Your task to perform on an android device: Search for usb-a to usb-b on costco, select the first entry, add it to the cart, then select checkout. Image 0: 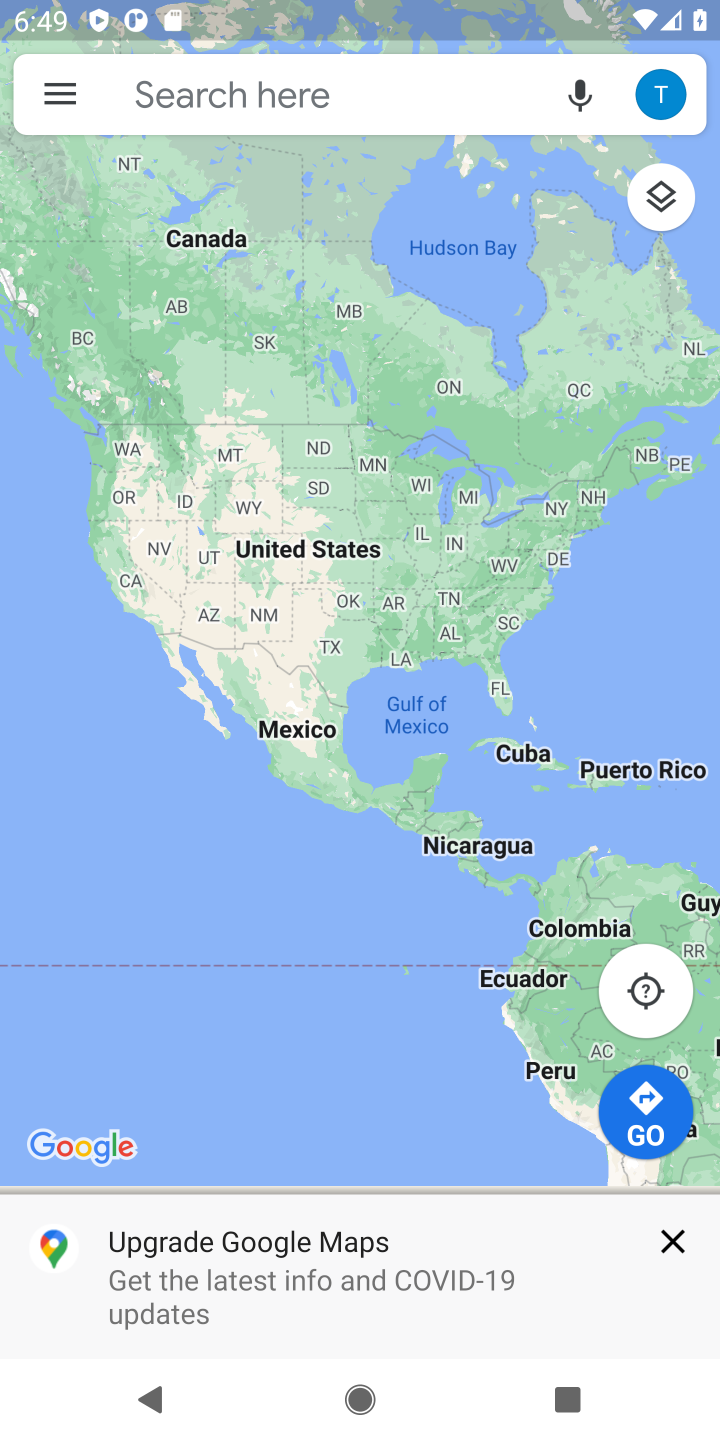
Step 0: press home button
Your task to perform on an android device: Search for usb-a to usb-b on costco, select the first entry, add it to the cart, then select checkout. Image 1: 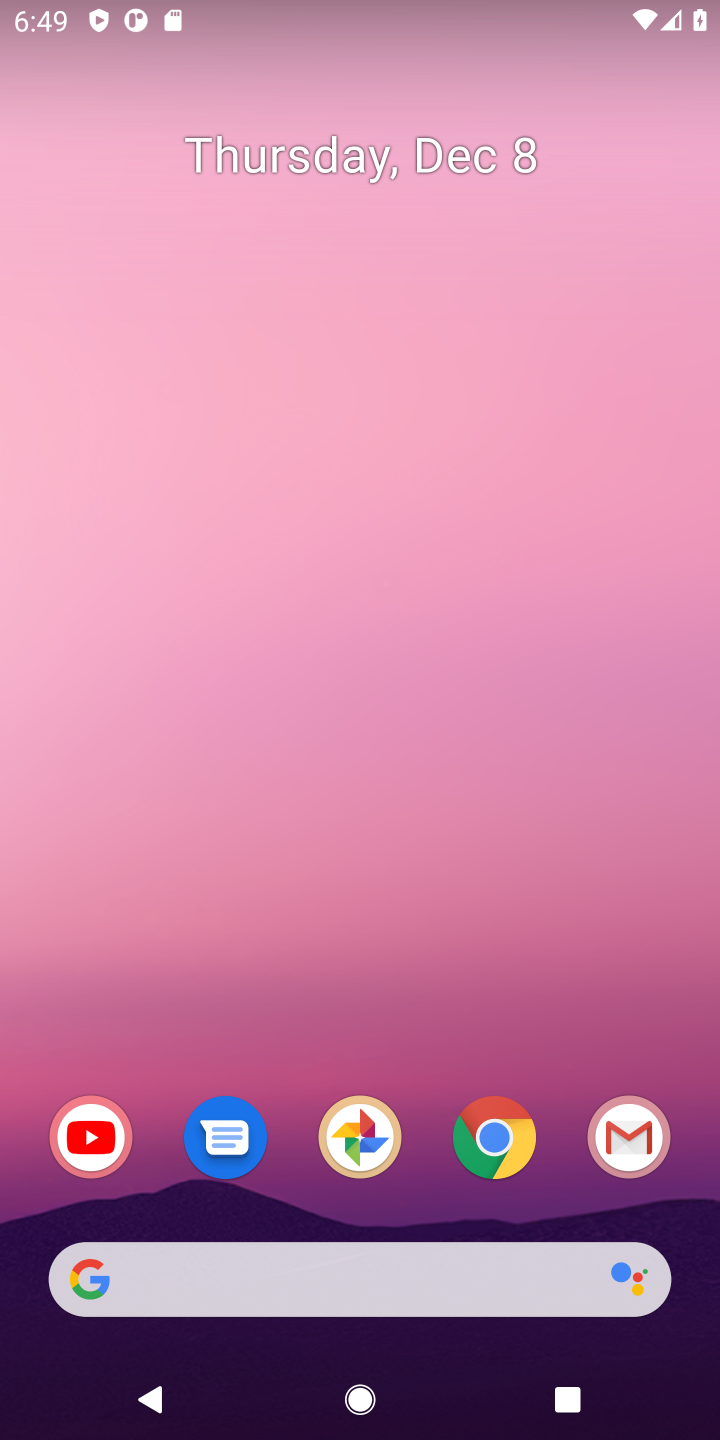
Step 1: click (470, 1143)
Your task to perform on an android device: Search for usb-a to usb-b on costco, select the first entry, add it to the cart, then select checkout. Image 2: 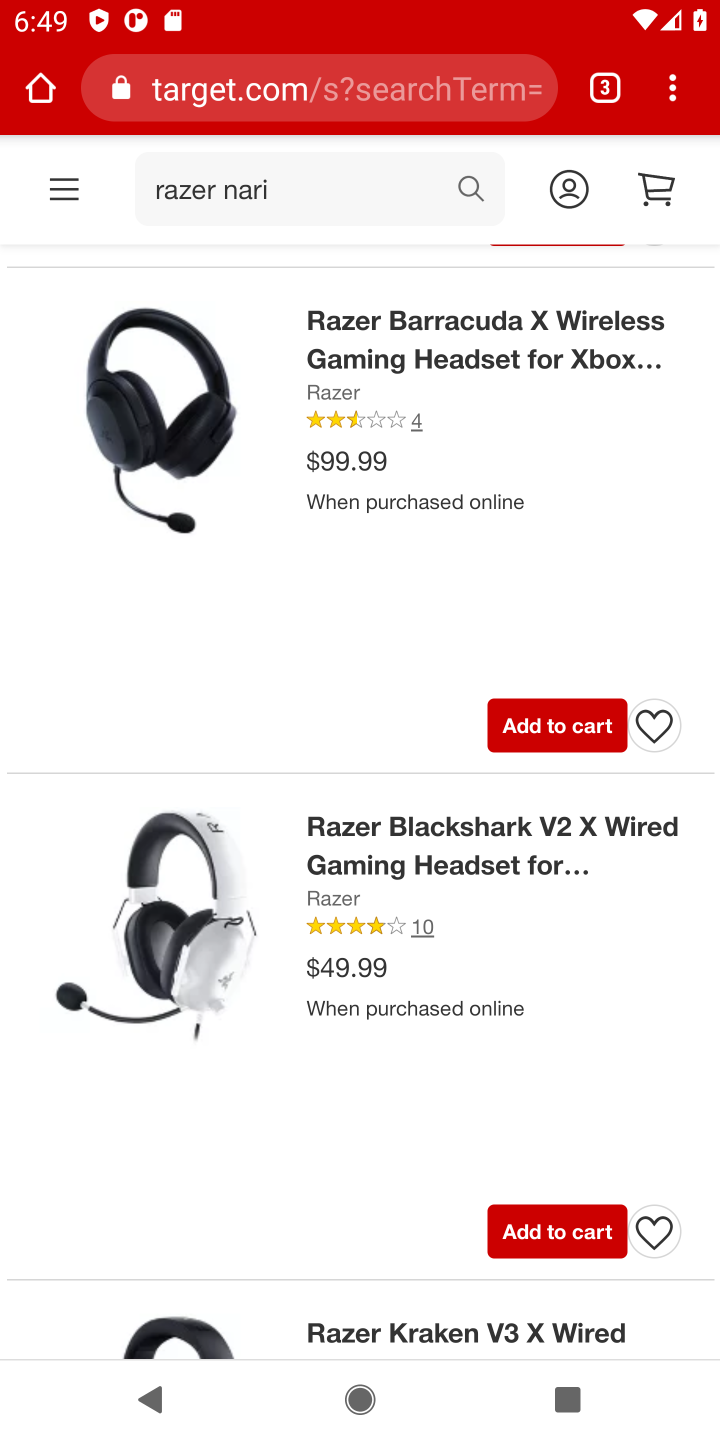
Step 2: click (603, 87)
Your task to perform on an android device: Search for usb-a to usb-b on costco, select the first entry, add it to the cart, then select checkout. Image 3: 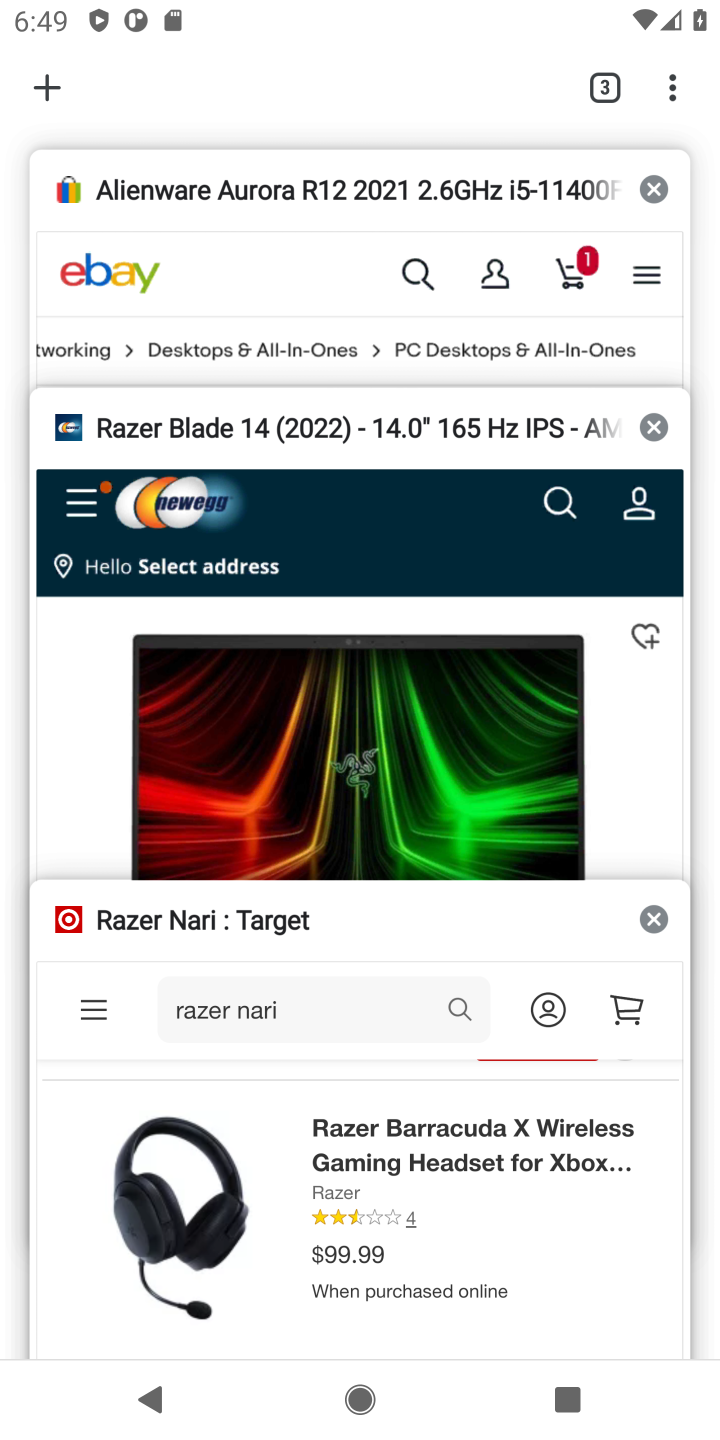
Step 3: click (46, 91)
Your task to perform on an android device: Search for usb-a to usb-b on costco, select the first entry, add it to the cart, then select checkout. Image 4: 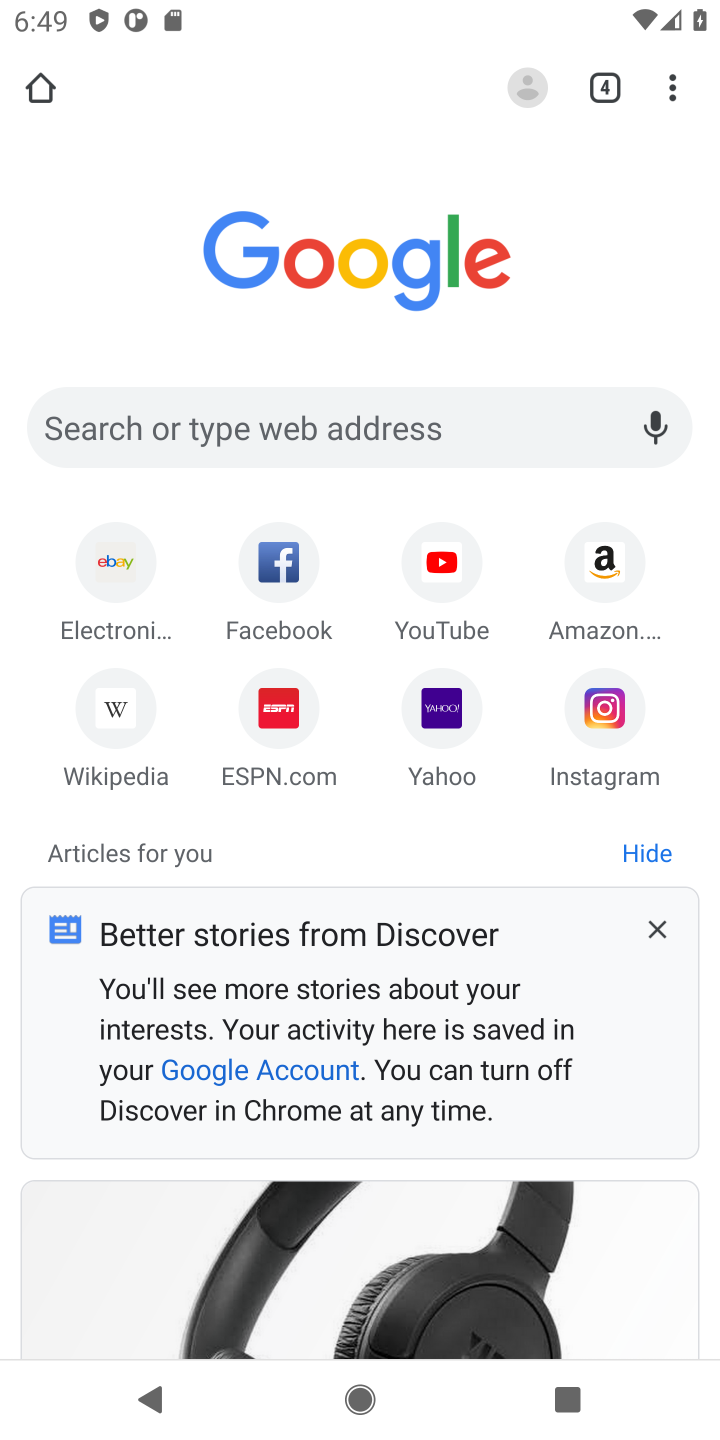
Step 4: click (307, 430)
Your task to perform on an android device: Search for usb-a to usb-b on costco, select the first entry, add it to the cart, then select checkout. Image 5: 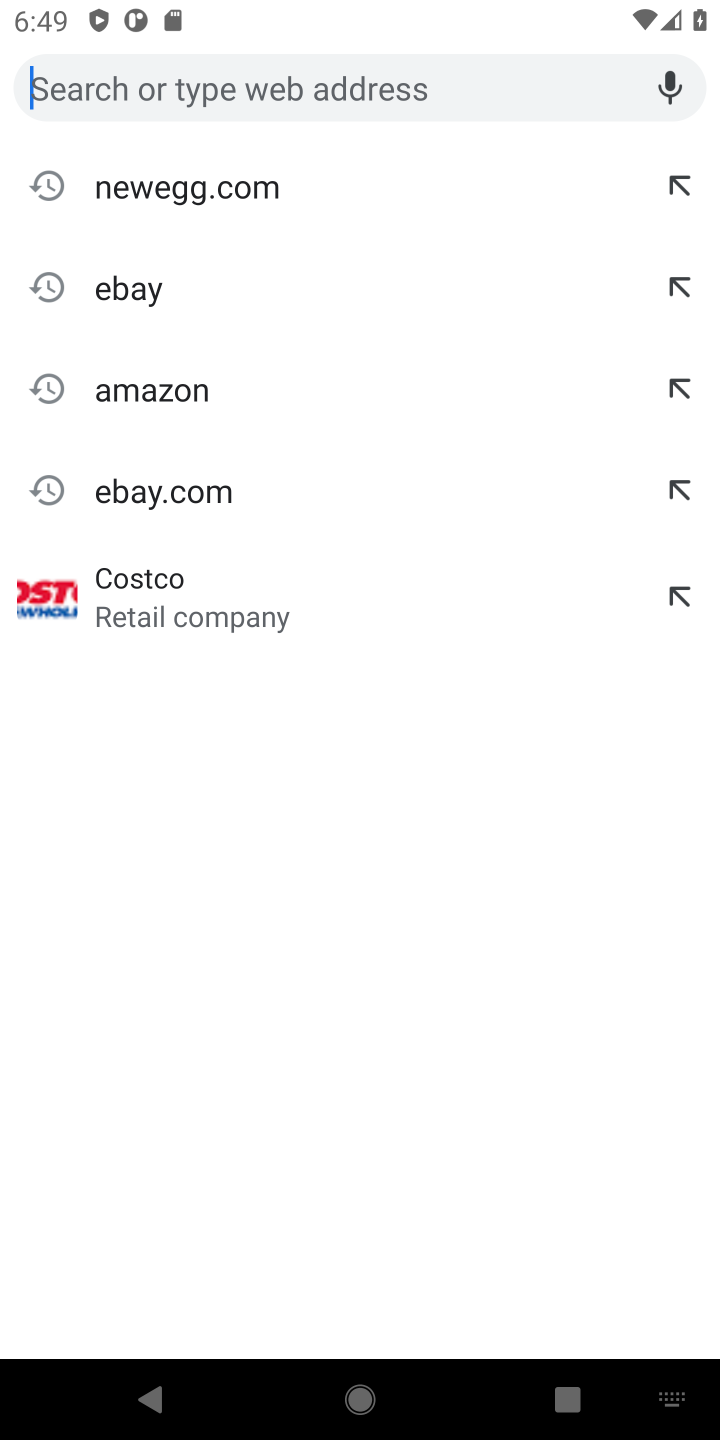
Step 5: click (86, 595)
Your task to perform on an android device: Search for usb-a to usb-b on costco, select the first entry, add it to the cart, then select checkout. Image 6: 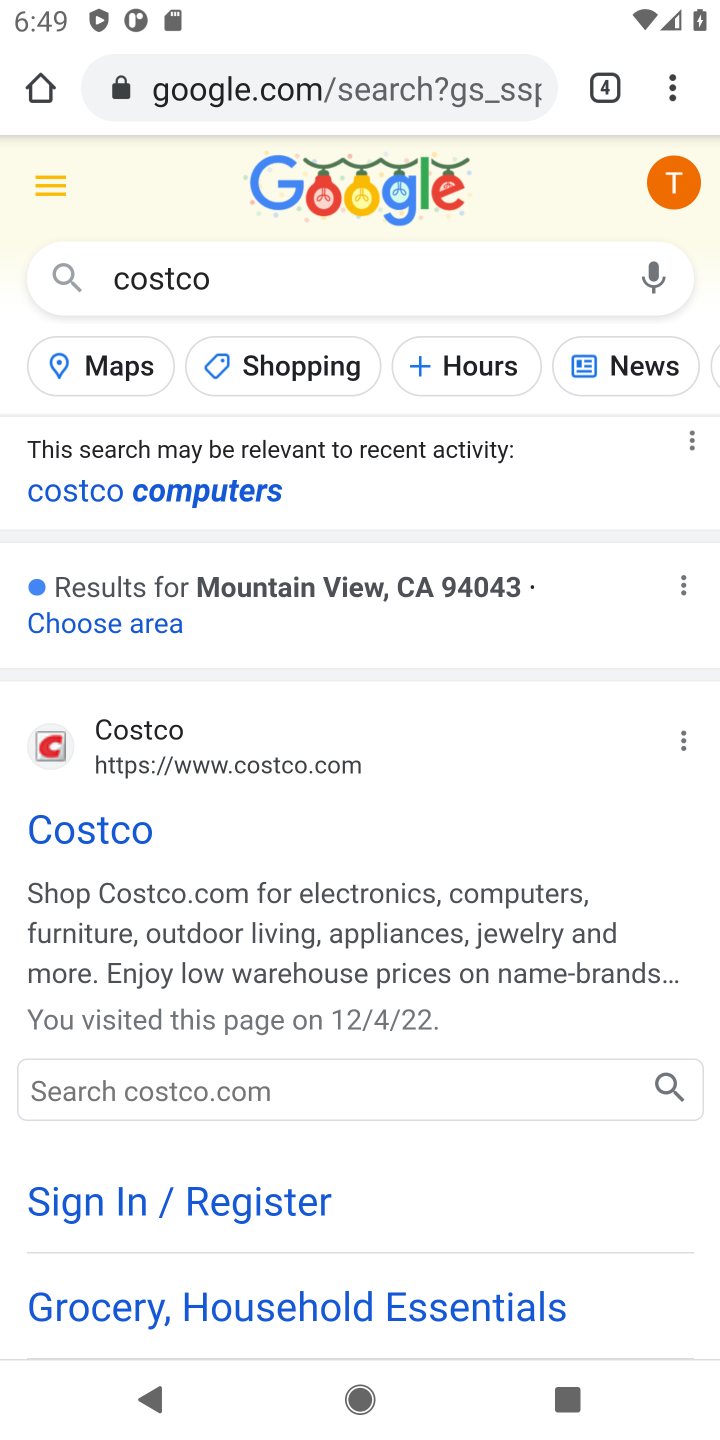
Step 6: click (222, 1088)
Your task to perform on an android device: Search for usb-a to usb-b on costco, select the first entry, add it to the cart, then select checkout. Image 7: 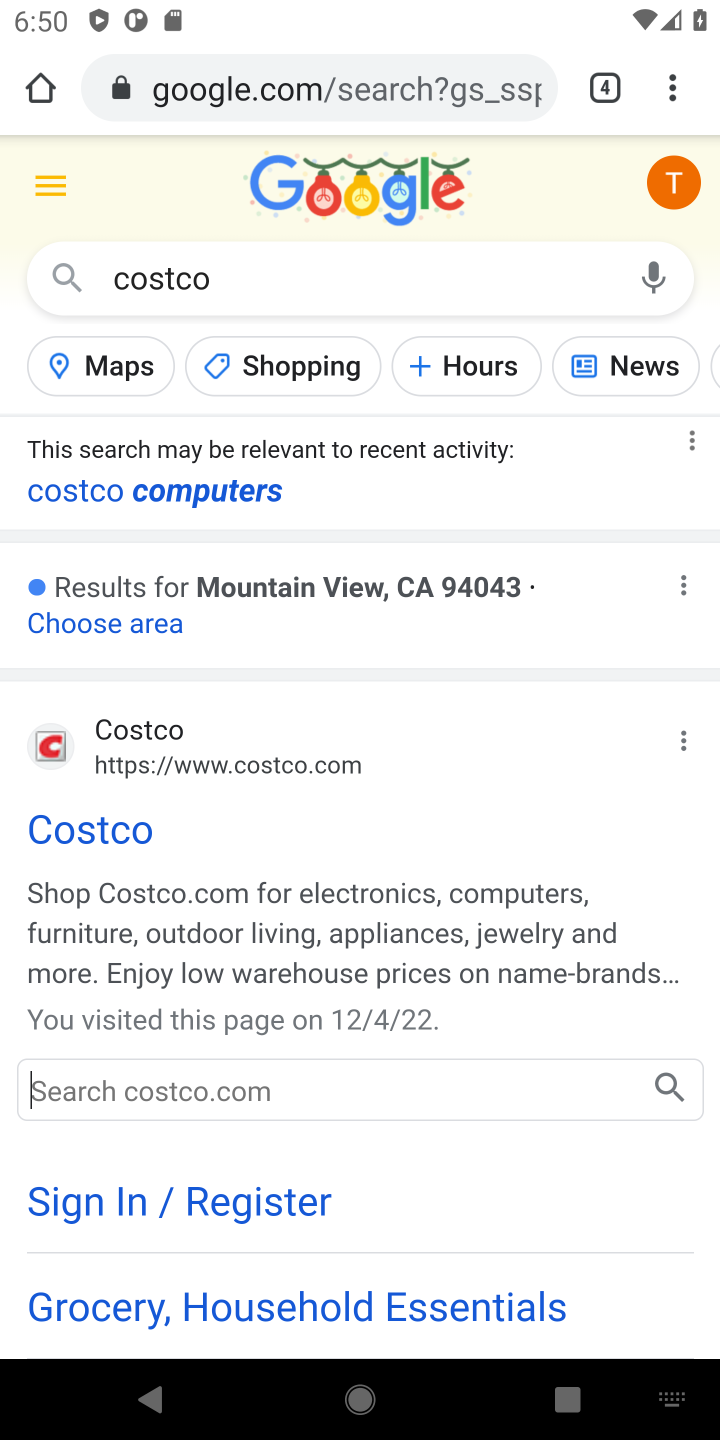
Step 7: type "usb-a to usb-b"
Your task to perform on an android device: Search for usb-a to usb-b on costco, select the first entry, add it to the cart, then select checkout. Image 8: 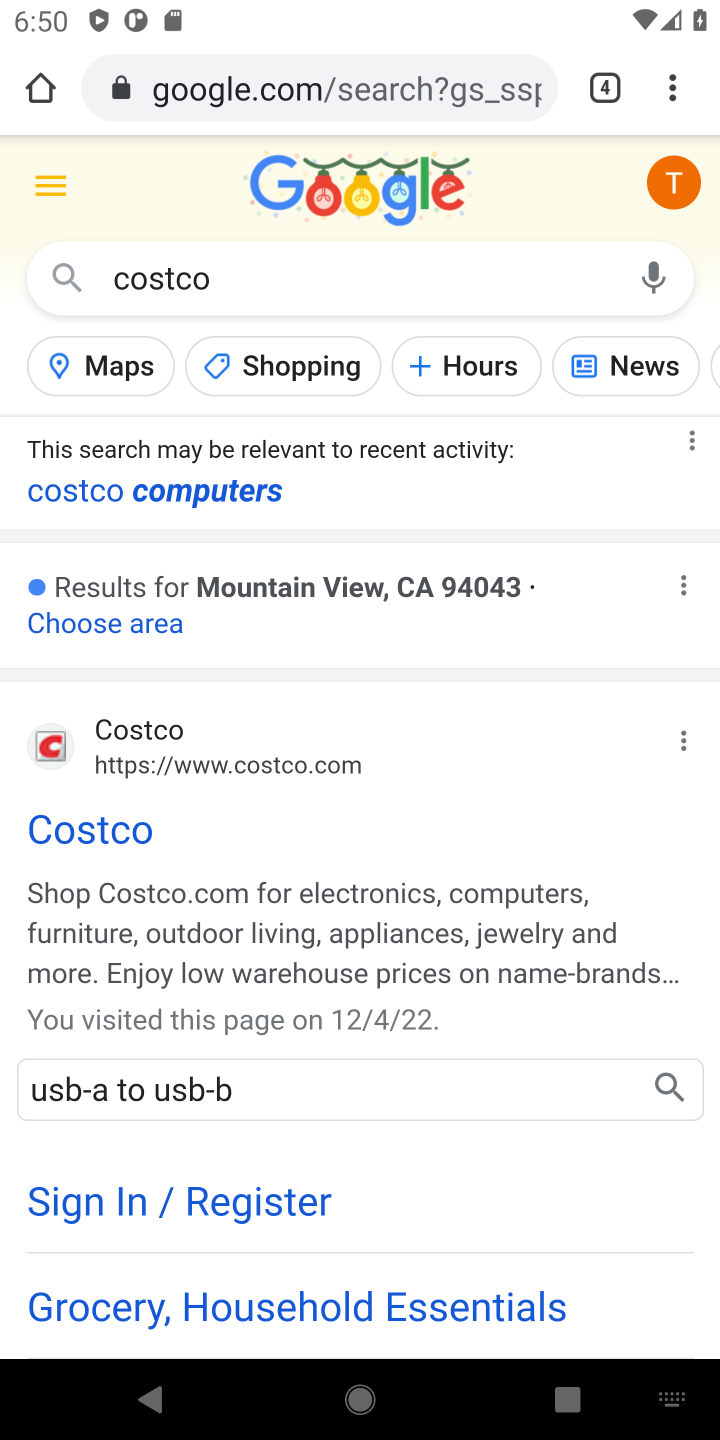
Step 8: click (671, 1081)
Your task to perform on an android device: Search for usb-a to usb-b on costco, select the first entry, add it to the cart, then select checkout. Image 9: 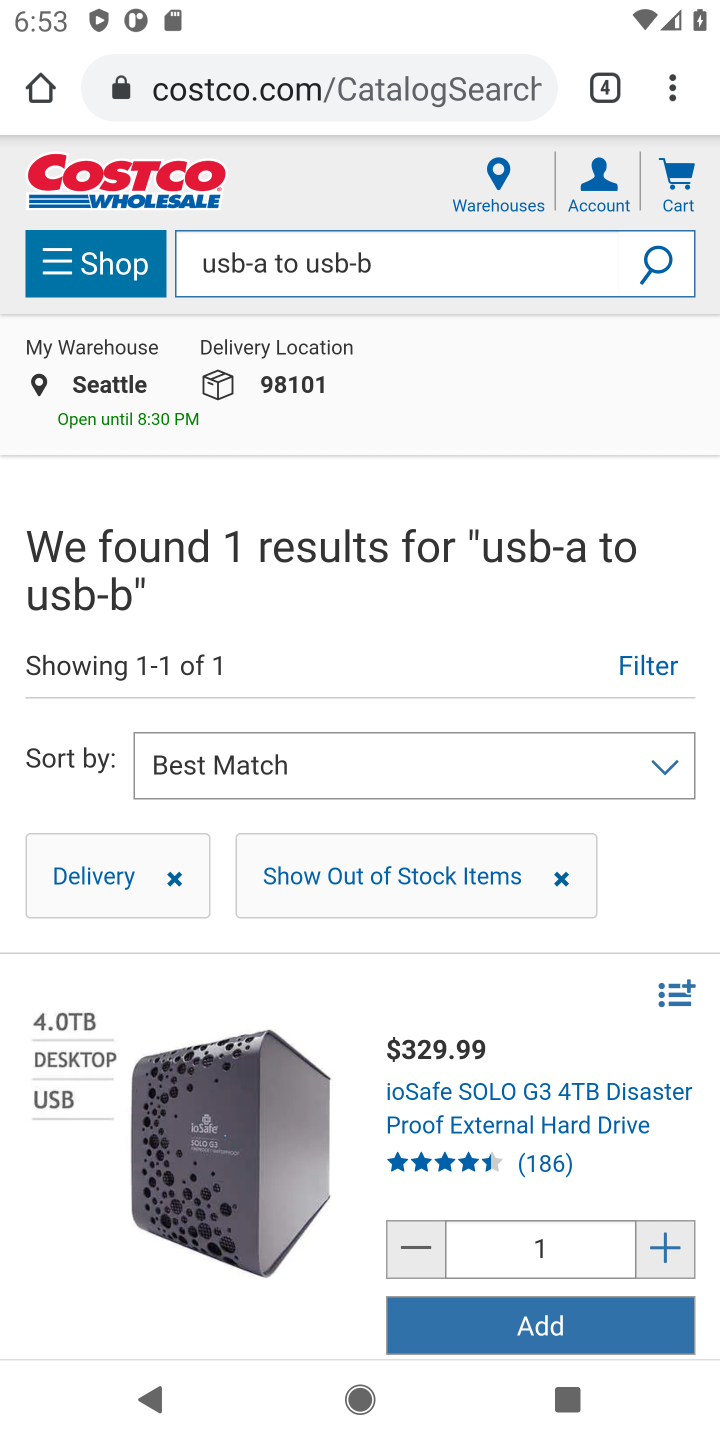
Step 9: task complete